Your task to perform on an android device: open a new tab in the chrome app Image 0: 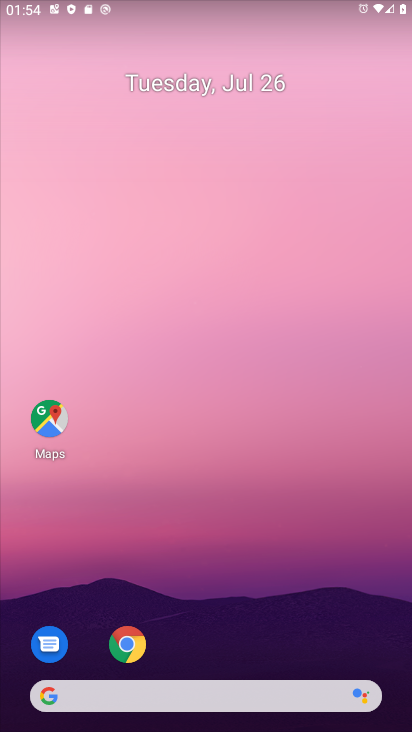
Step 0: drag from (252, 654) to (221, 102)
Your task to perform on an android device: open a new tab in the chrome app Image 1: 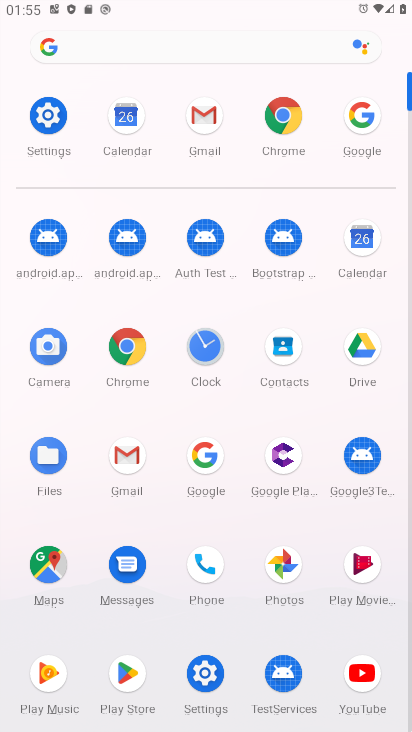
Step 1: click (290, 106)
Your task to perform on an android device: open a new tab in the chrome app Image 2: 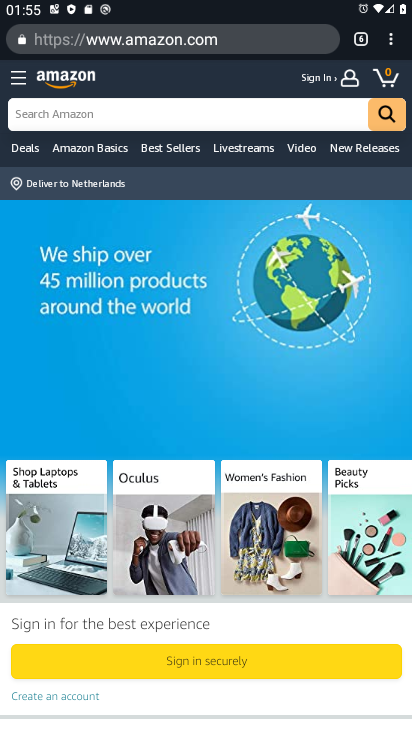
Step 2: click (395, 36)
Your task to perform on an android device: open a new tab in the chrome app Image 3: 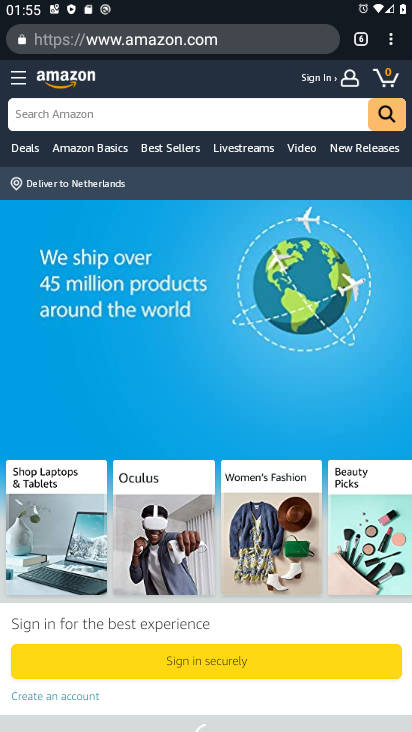
Step 3: click (411, 34)
Your task to perform on an android device: open a new tab in the chrome app Image 4: 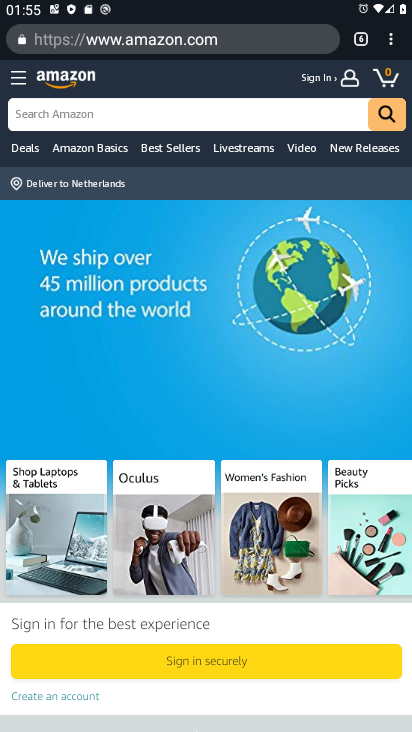
Step 4: click (390, 36)
Your task to perform on an android device: open a new tab in the chrome app Image 5: 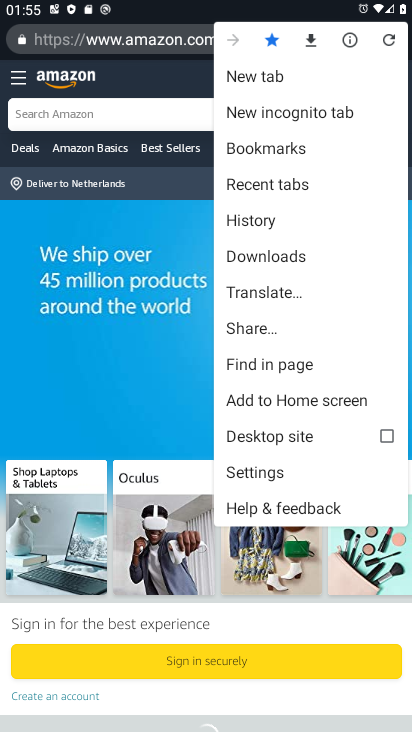
Step 5: click (280, 75)
Your task to perform on an android device: open a new tab in the chrome app Image 6: 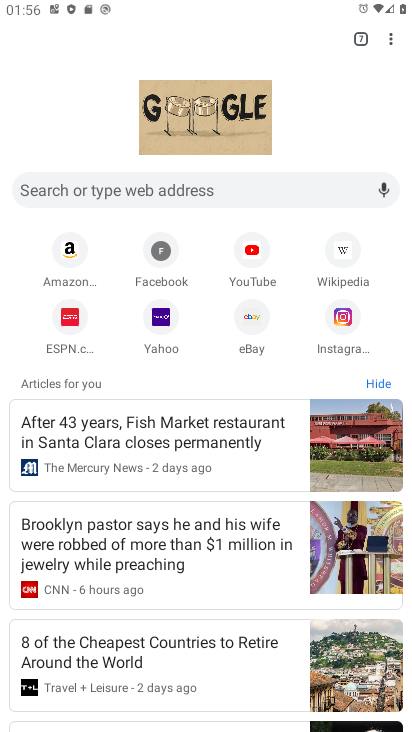
Step 6: task complete